Your task to perform on an android device: Search for "usb-c" on amazon, select the first entry, add it to the cart, then select checkout. Image 0: 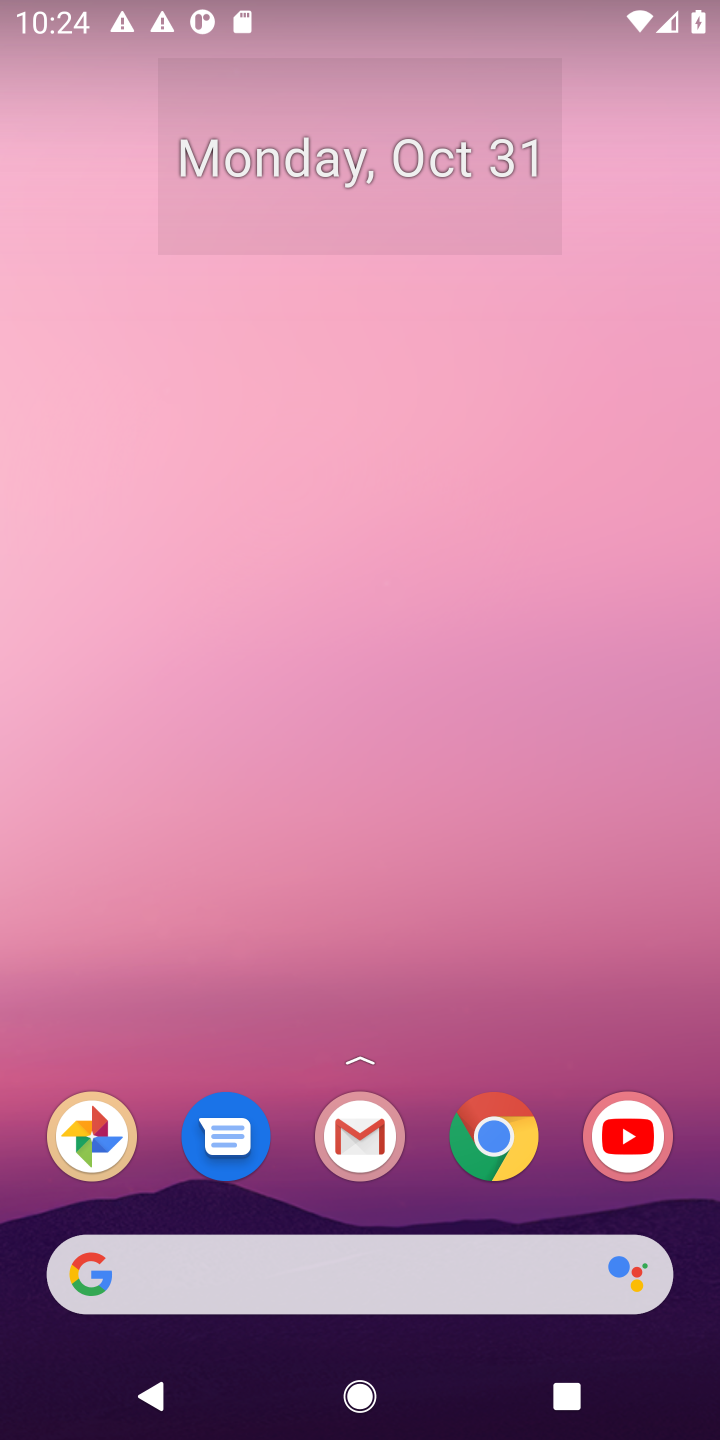
Step 0: press home button
Your task to perform on an android device: Search for "usb-c" on amazon, select the first entry, add it to the cart, then select checkout. Image 1: 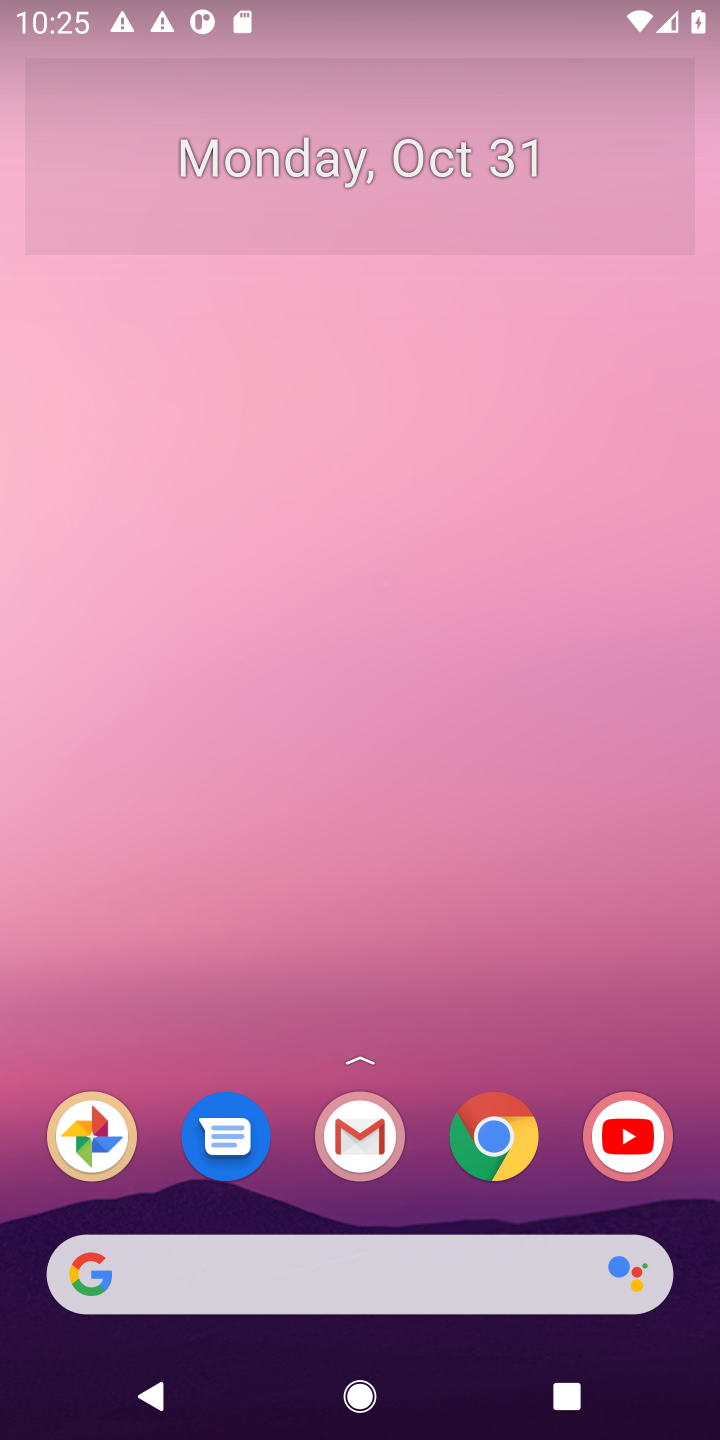
Step 1: click (120, 1276)
Your task to perform on an android device: Search for "usb-c" on amazon, select the first entry, add it to the cart, then select checkout. Image 2: 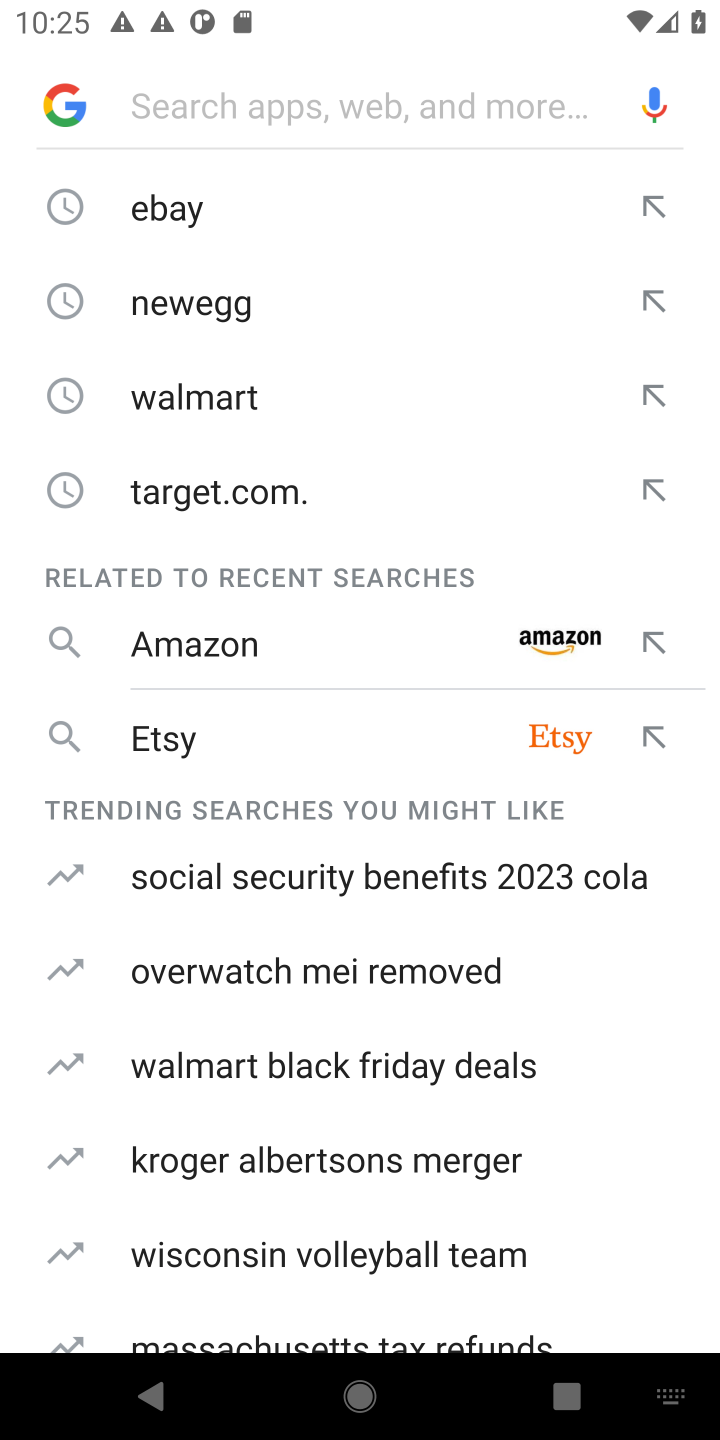
Step 2: type "amazon"
Your task to perform on an android device: Search for "usb-c" on amazon, select the first entry, add it to the cart, then select checkout. Image 3: 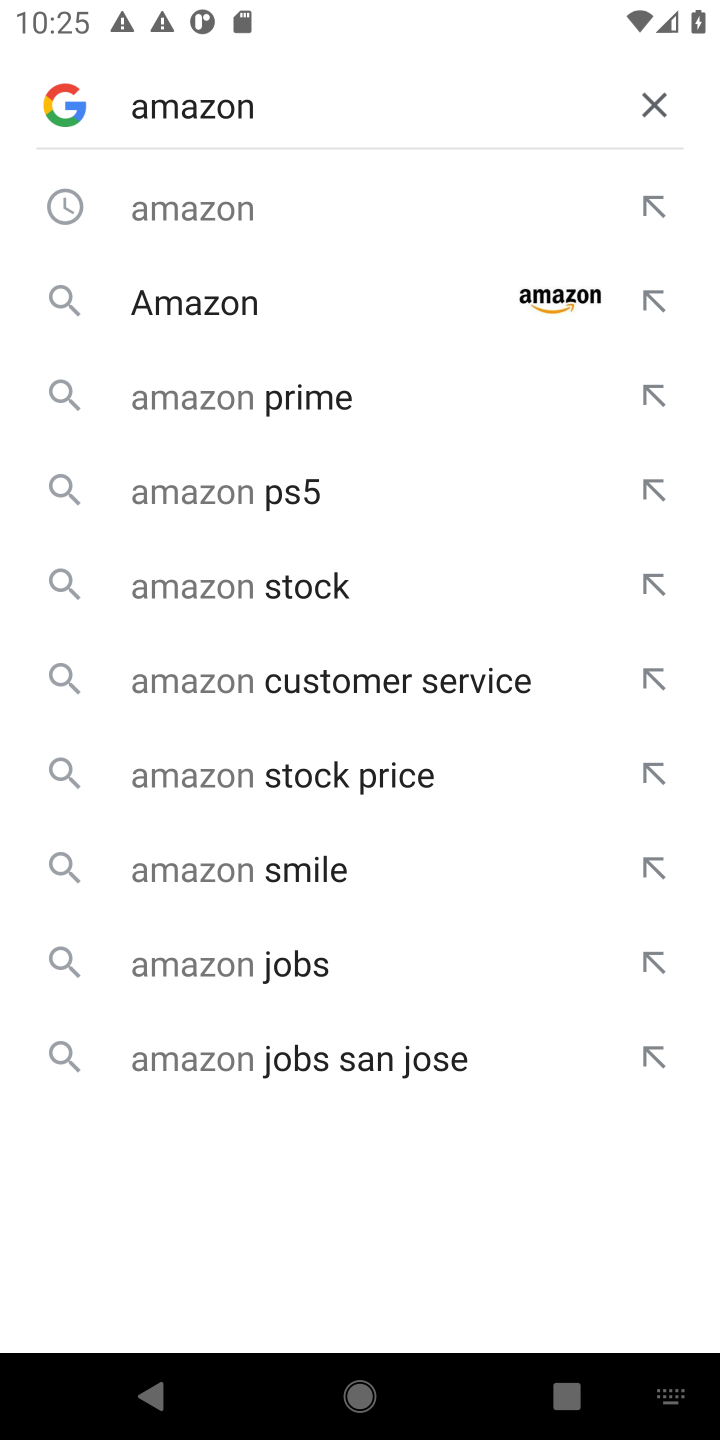
Step 3: press enter
Your task to perform on an android device: Search for "usb-c" on amazon, select the first entry, add it to the cart, then select checkout. Image 4: 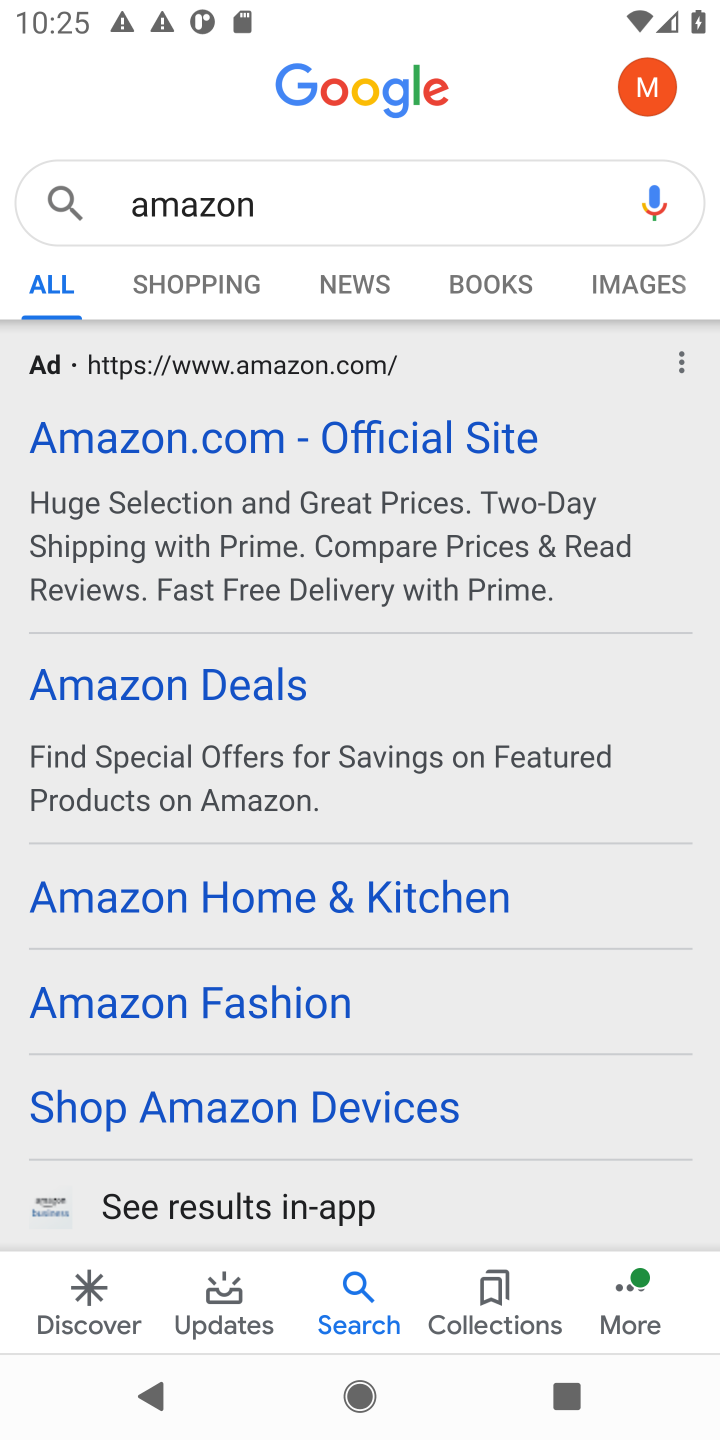
Step 4: click (231, 434)
Your task to perform on an android device: Search for "usb-c" on amazon, select the first entry, add it to the cart, then select checkout. Image 5: 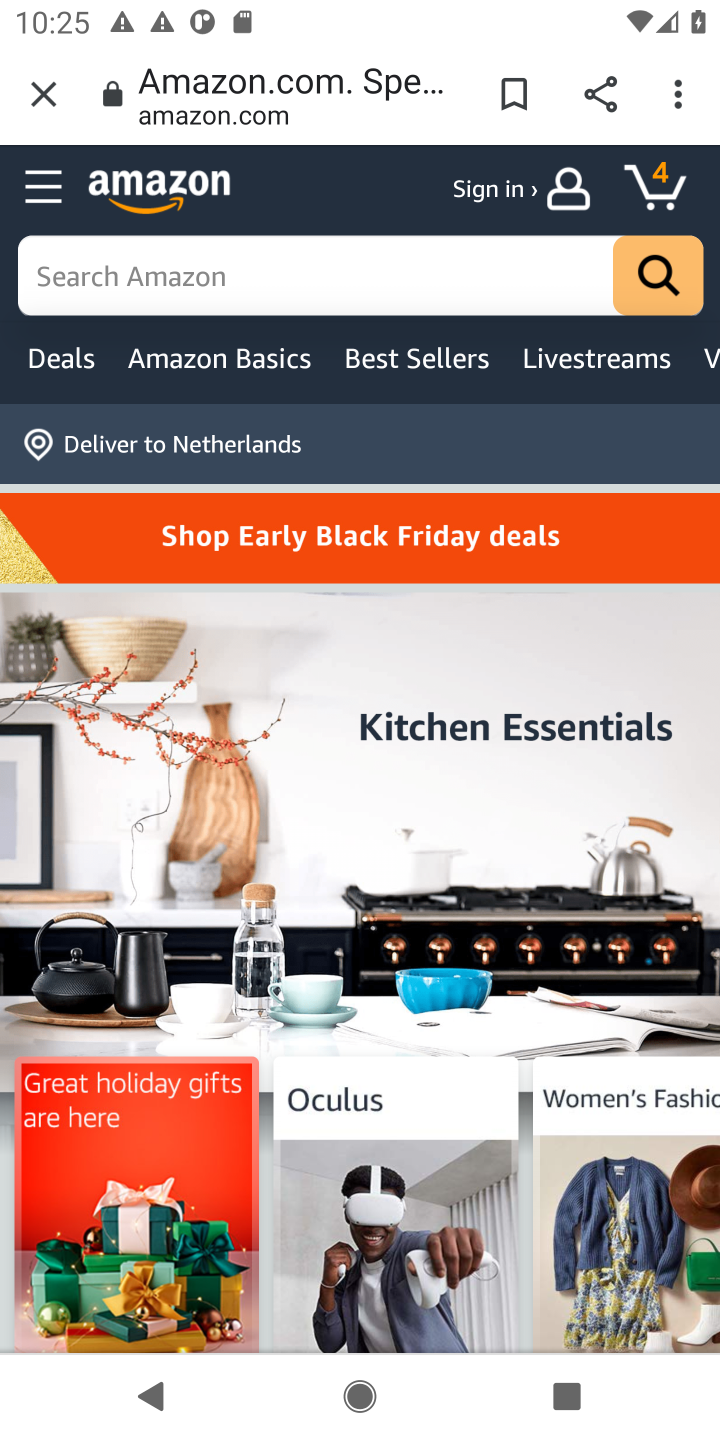
Step 5: click (191, 279)
Your task to perform on an android device: Search for "usb-c" on amazon, select the first entry, add it to the cart, then select checkout. Image 6: 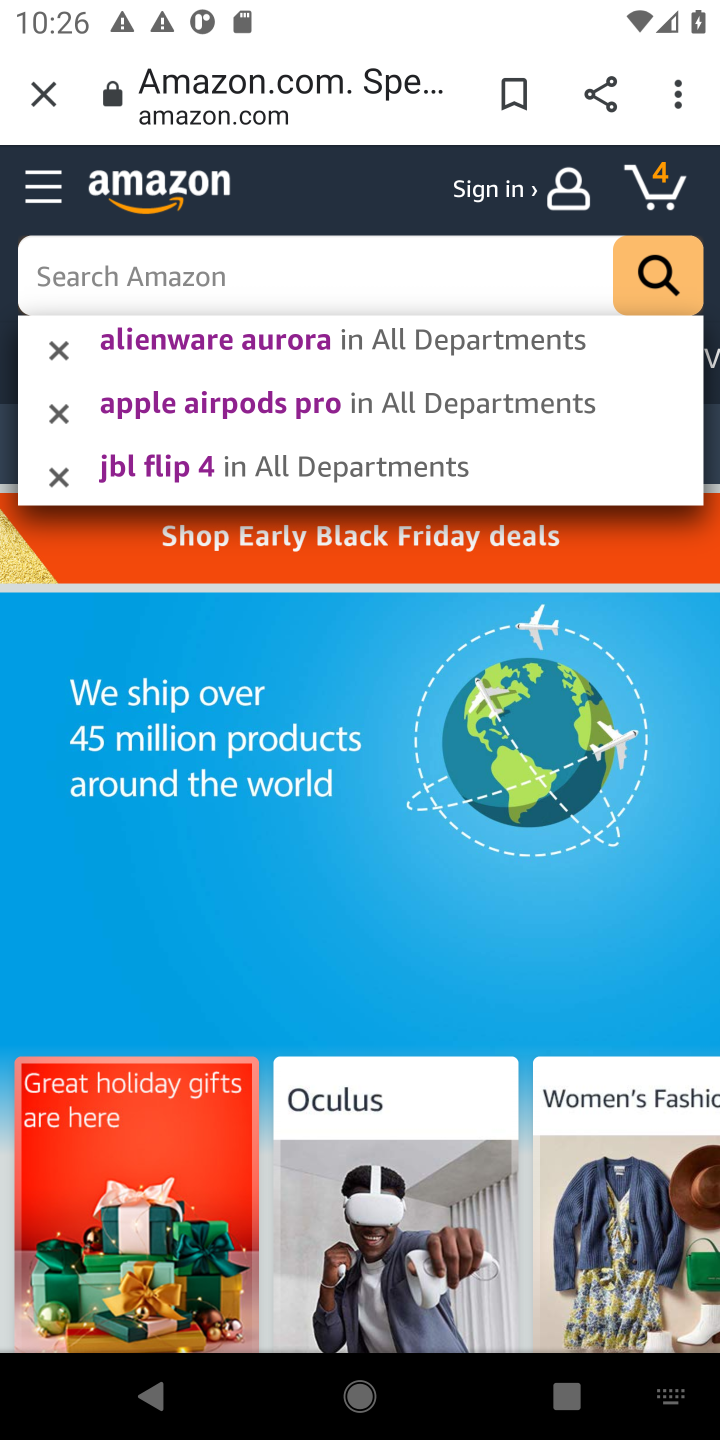
Step 6: type "usb-c"
Your task to perform on an android device: Search for "usb-c" on amazon, select the first entry, add it to the cart, then select checkout. Image 7: 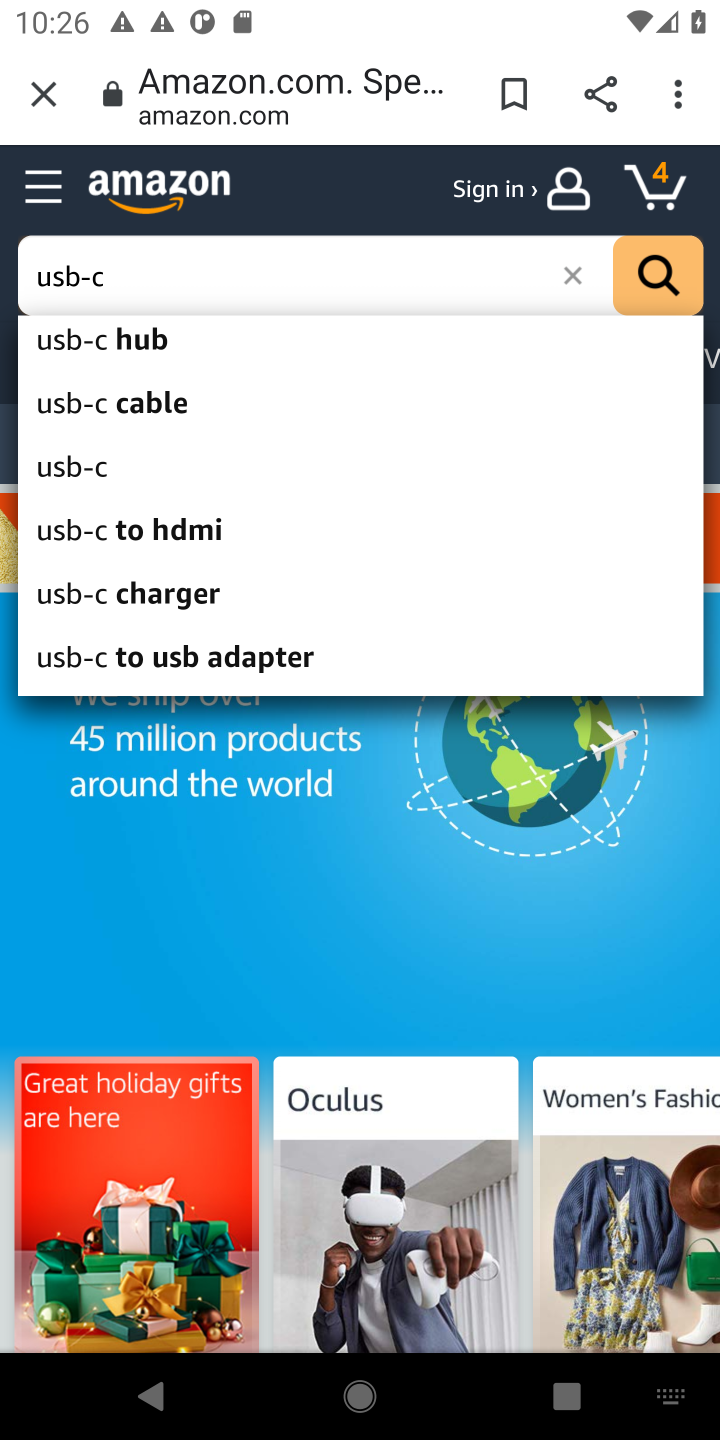
Step 7: click (659, 282)
Your task to perform on an android device: Search for "usb-c" on amazon, select the first entry, add it to the cart, then select checkout. Image 8: 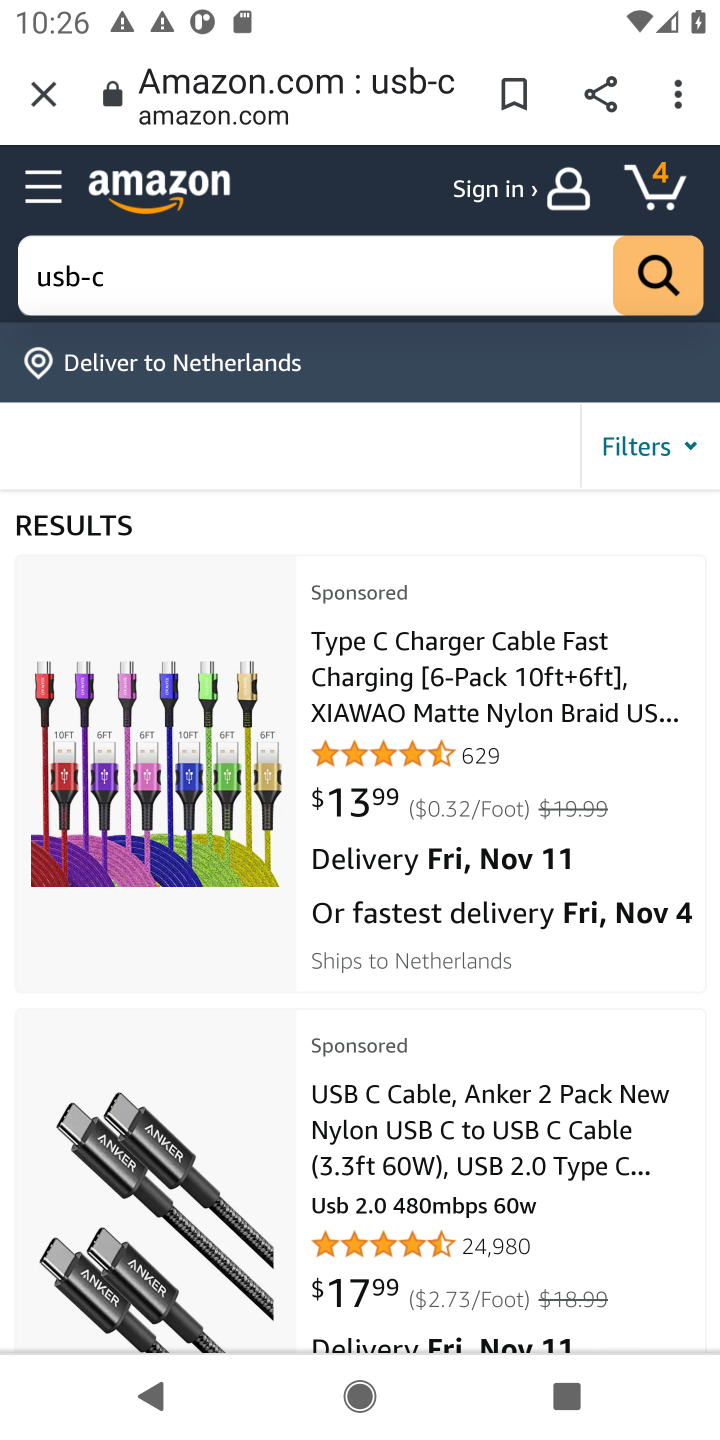
Step 8: click (415, 681)
Your task to perform on an android device: Search for "usb-c" on amazon, select the first entry, add it to the cart, then select checkout. Image 9: 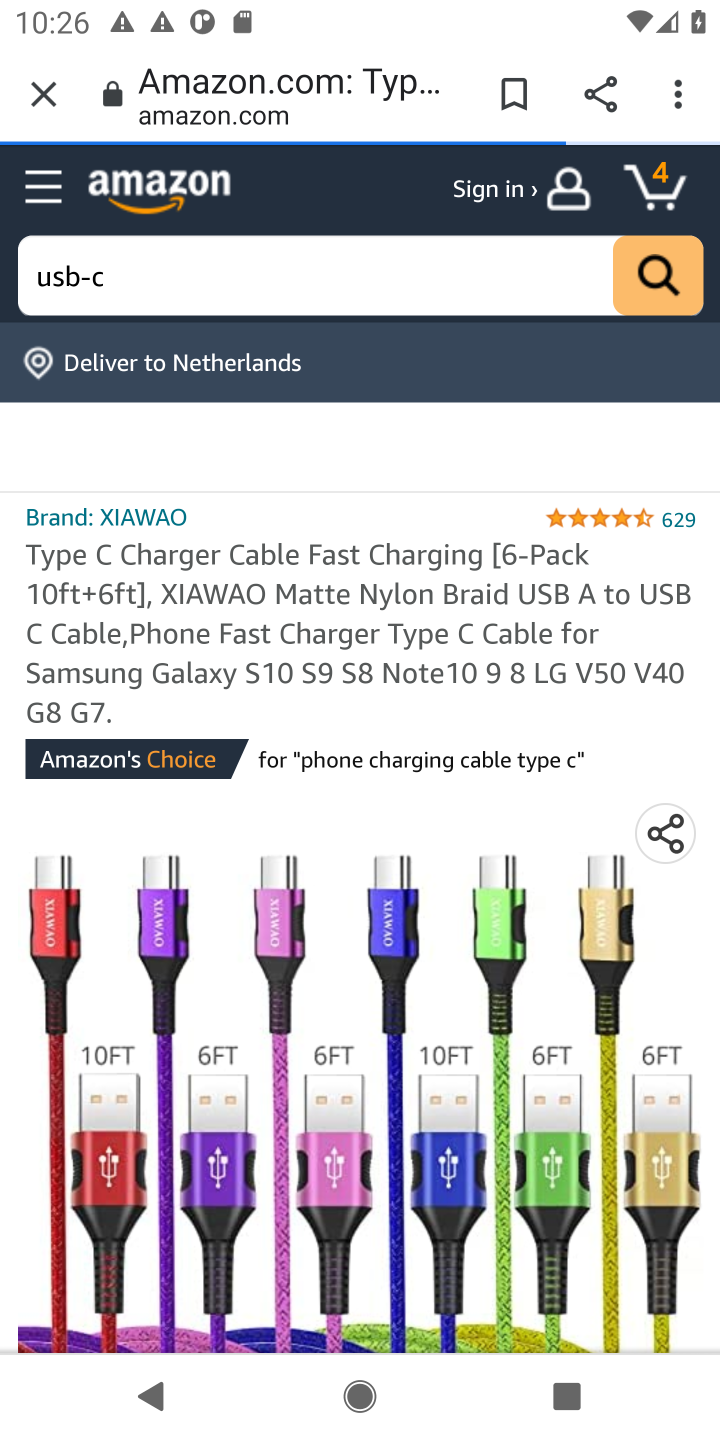
Step 9: drag from (425, 1188) to (475, 657)
Your task to perform on an android device: Search for "usb-c" on amazon, select the first entry, add it to the cart, then select checkout. Image 10: 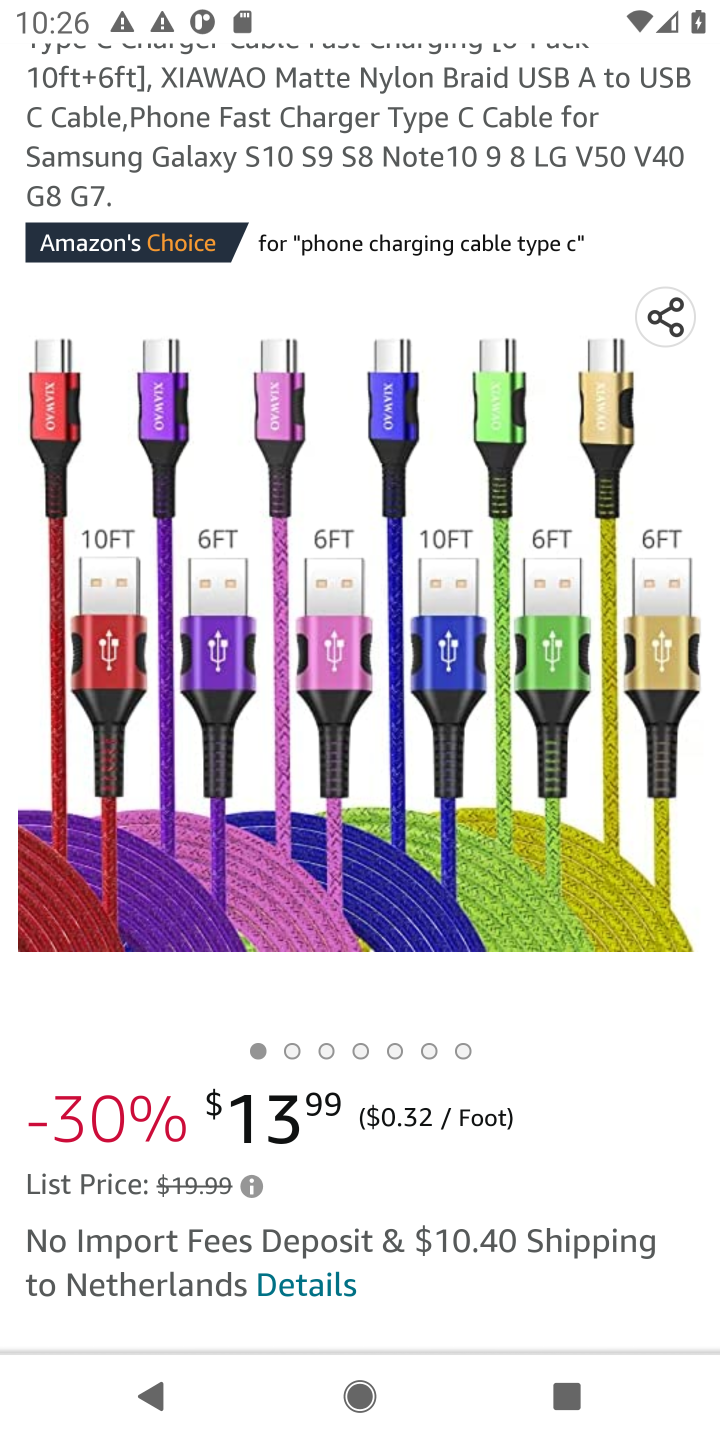
Step 10: drag from (382, 1237) to (462, 545)
Your task to perform on an android device: Search for "usb-c" on amazon, select the first entry, add it to the cart, then select checkout. Image 11: 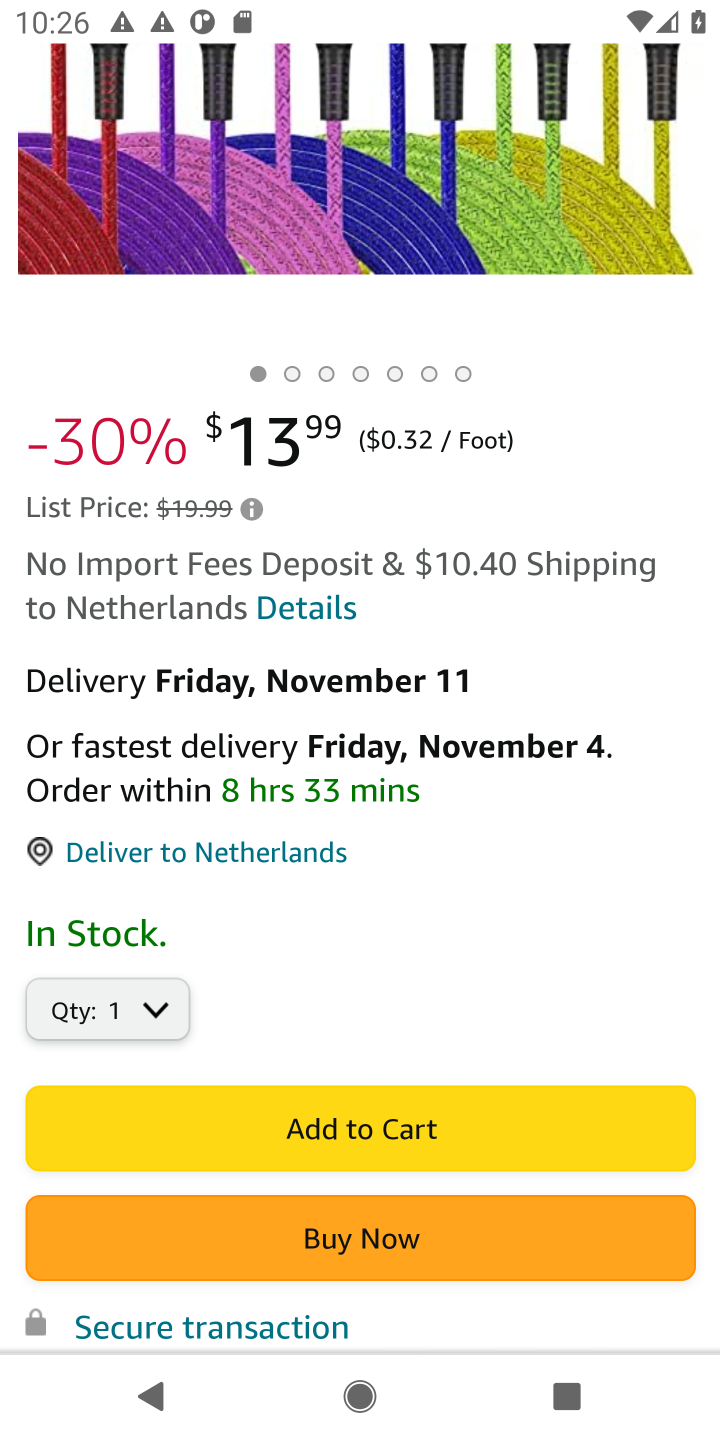
Step 11: drag from (443, 947) to (475, 436)
Your task to perform on an android device: Search for "usb-c" on amazon, select the first entry, add it to the cart, then select checkout. Image 12: 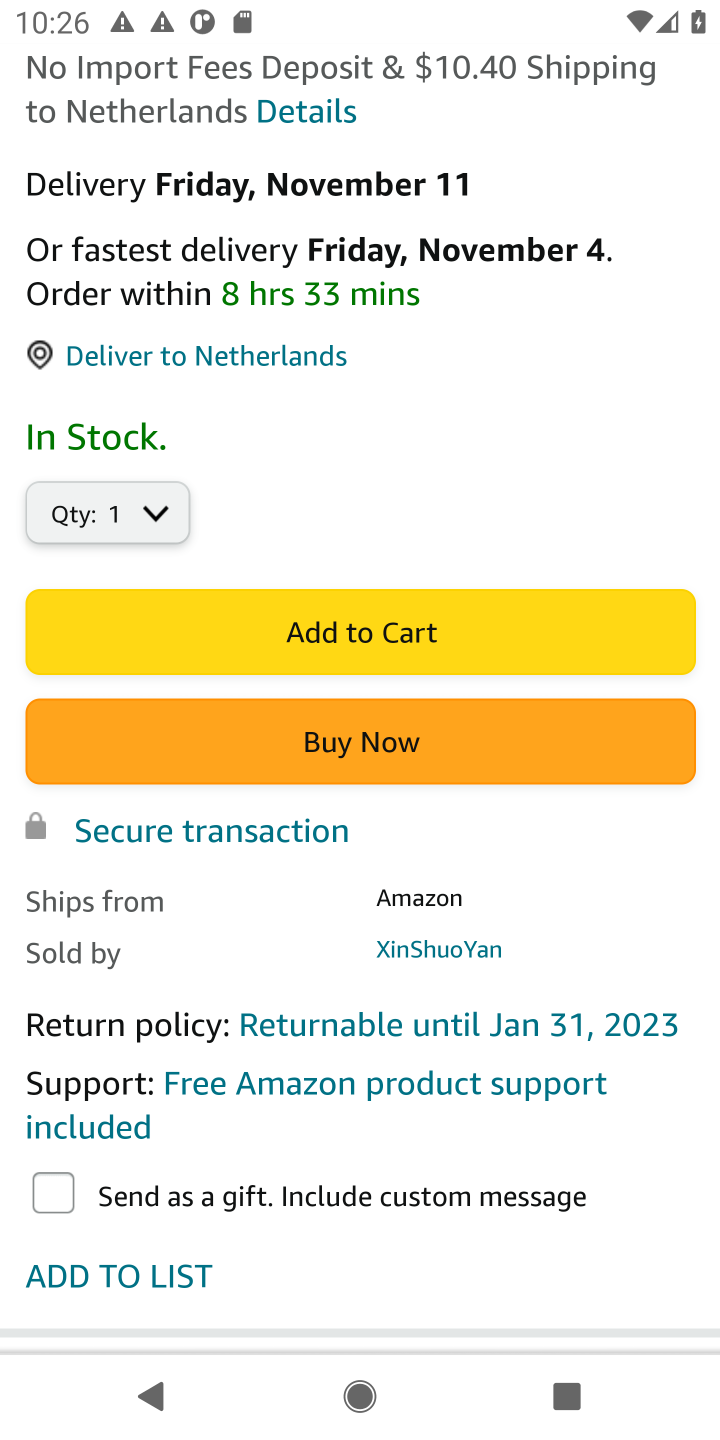
Step 12: click (295, 638)
Your task to perform on an android device: Search for "usb-c" on amazon, select the first entry, add it to the cart, then select checkout. Image 13: 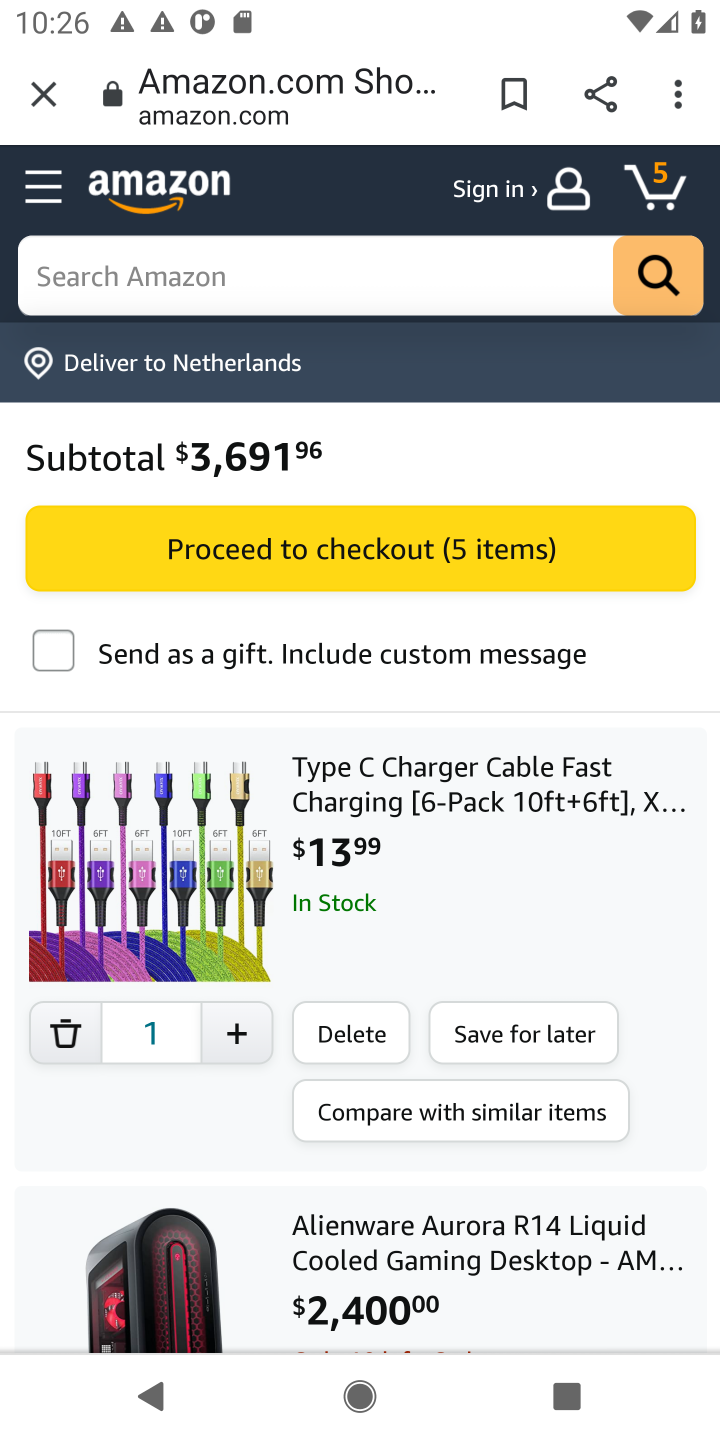
Step 13: click (664, 169)
Your task to perform on an android device: Search for "usb-c" on amazon, select the first entry, add it to the cart, then select checkout. Image 14: 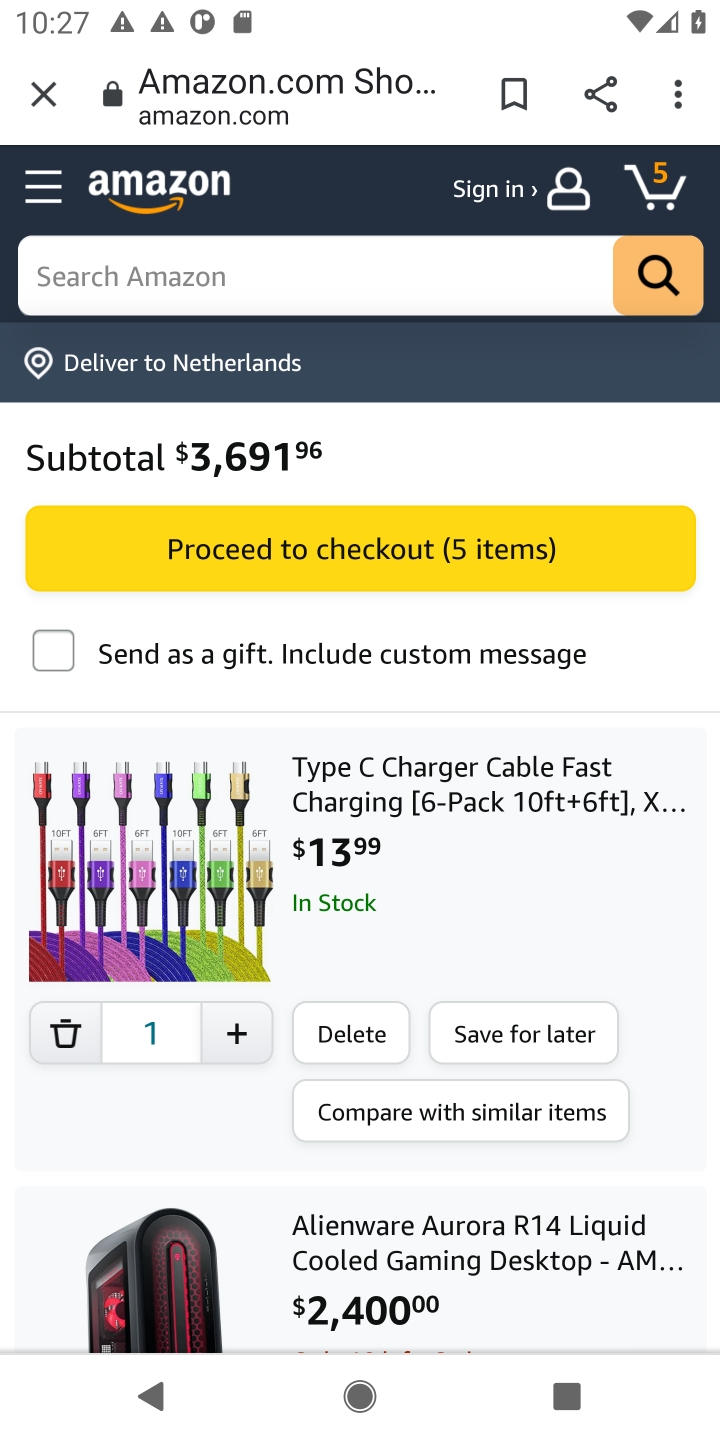
Step 14: click (658, 180)
Your task to perform on an android device: Search for "usb-c" on amazon, select the first entry, add it to the cart, then select checkout. Image 15: 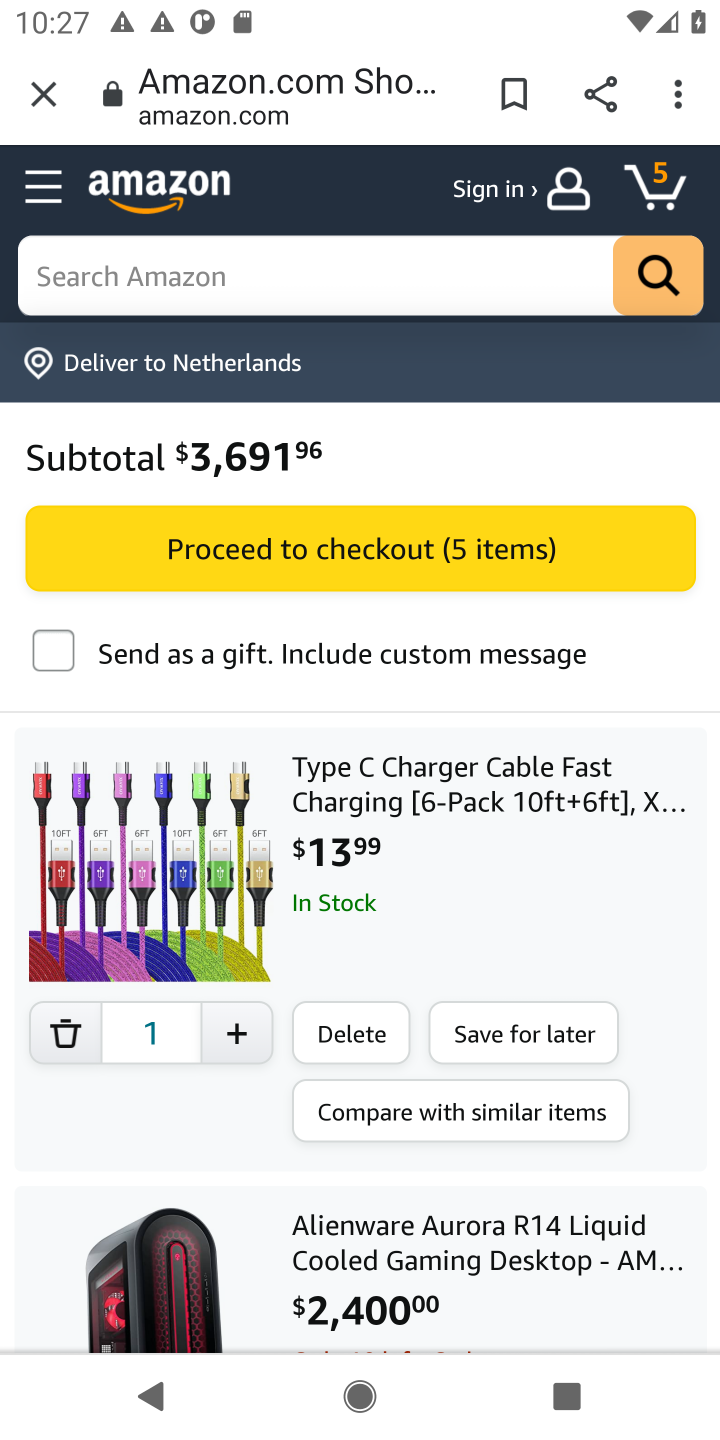
Step 15: click (484, 549)
Your task to perform on an android device: Search for "usb-c" on amazon, select the first entry, add it to the cart, then select checkout. Image 16: 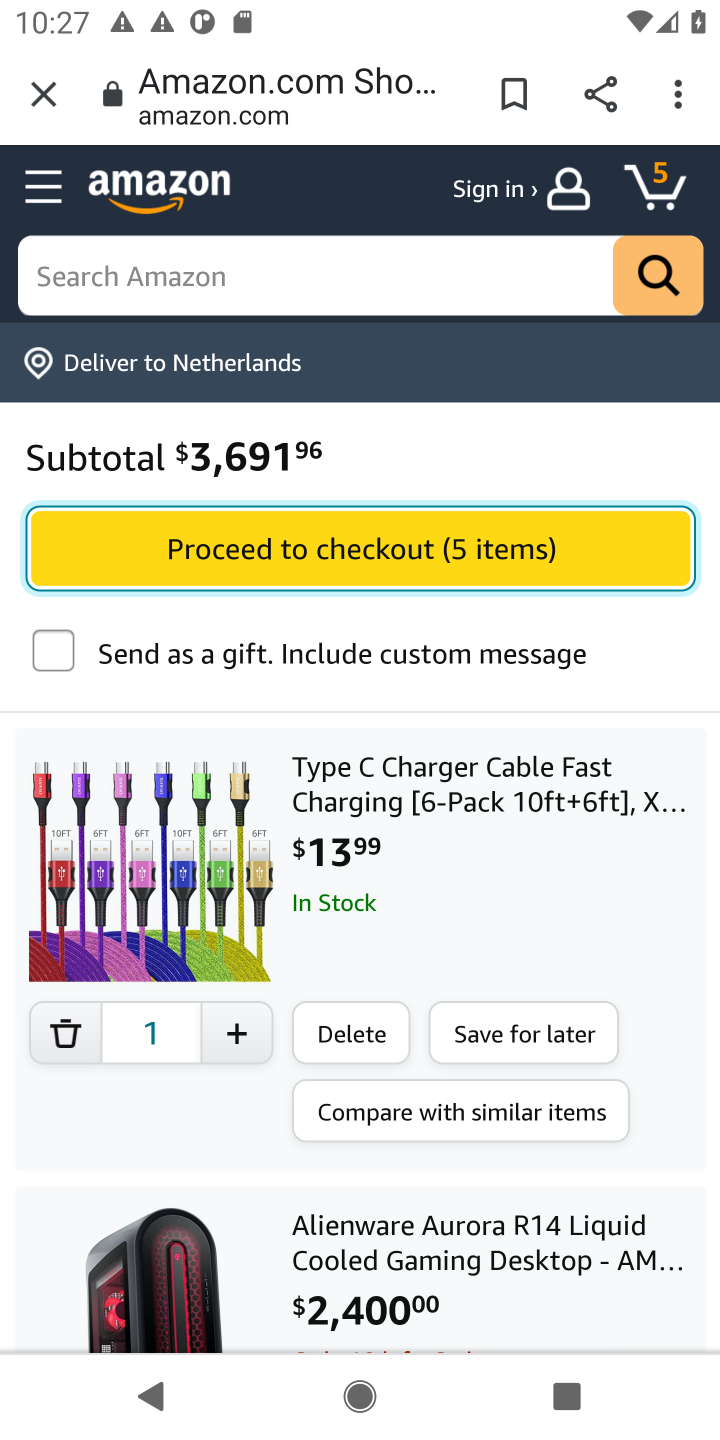
Step 16: task complete